Your task to perform on an android device: Open Chrome and go to the settings page Image 0: 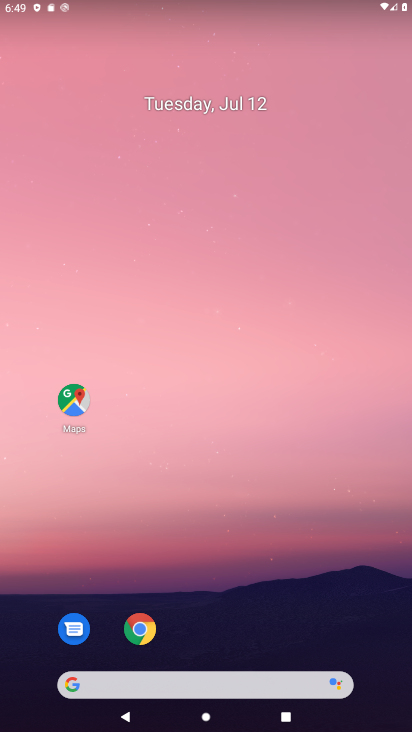
Step 0: drag from (261, 694) to (284, 191)
Your task to perform on an android device: Open Chrome and go to the settings page Image 1: 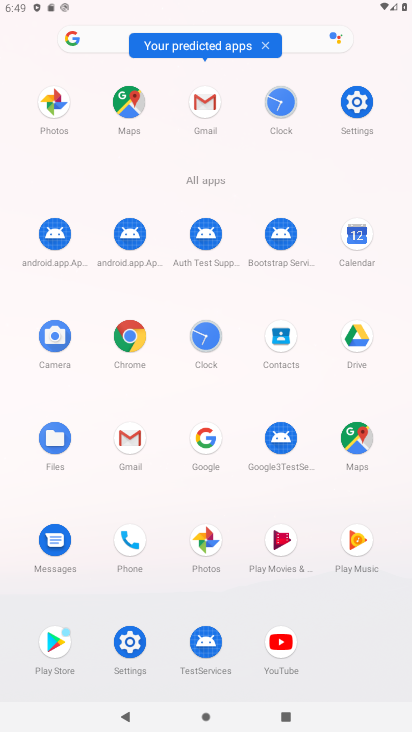
Step 1: click (133, 336)
Your task to perform on an android device: Open Chrome and go to the settings page Image 2: 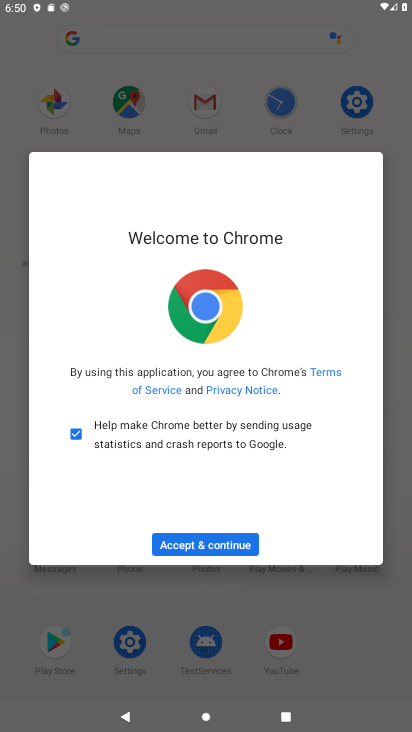
Step 2: click (223, 537)
Your task to perform on an android device: Open Chrome and go to the settings page Image 3: 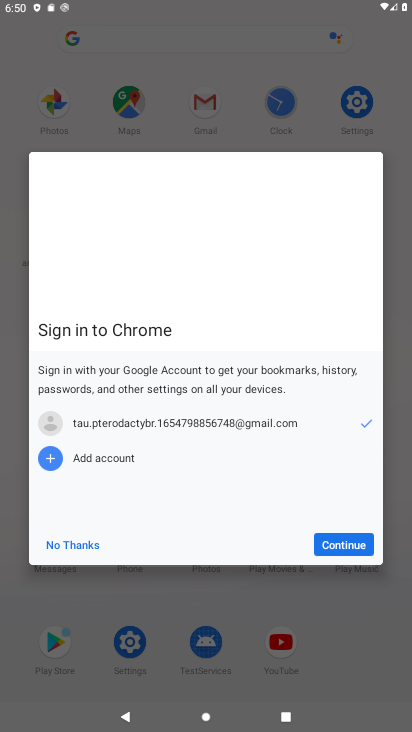
Step 3: click (343, 535)
Your task to perform on an android device: Open Chrome and go to the settings page Image 4: 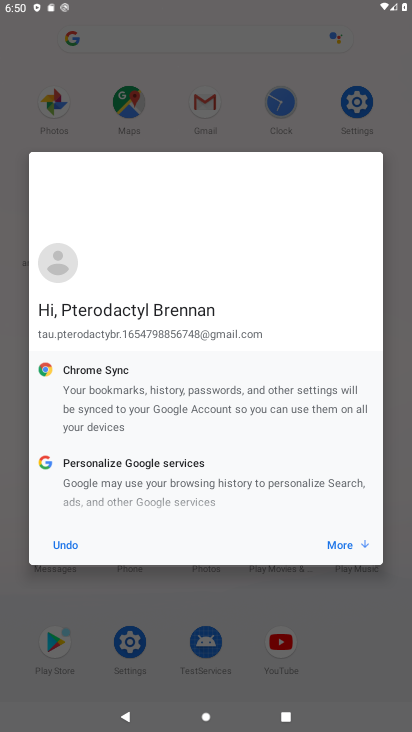
Step 4: click (357, 535)
Your task to perform on an android device: Open Chrome and go to the settings page Image 5: 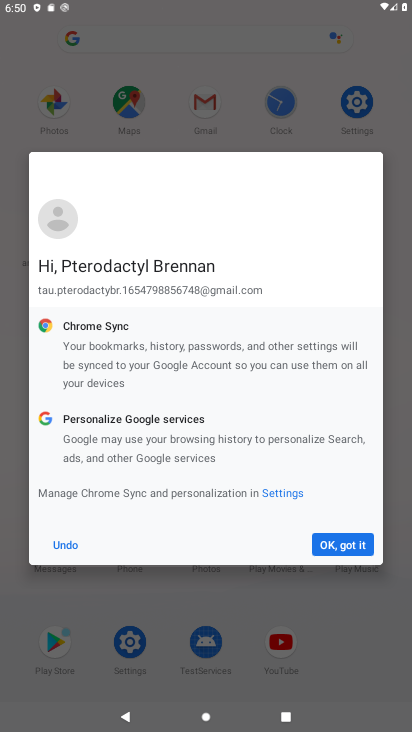
Step 5: click (356, 539)
Your task to perform on an android device: Open Chrome and go to the settings page Image 6: 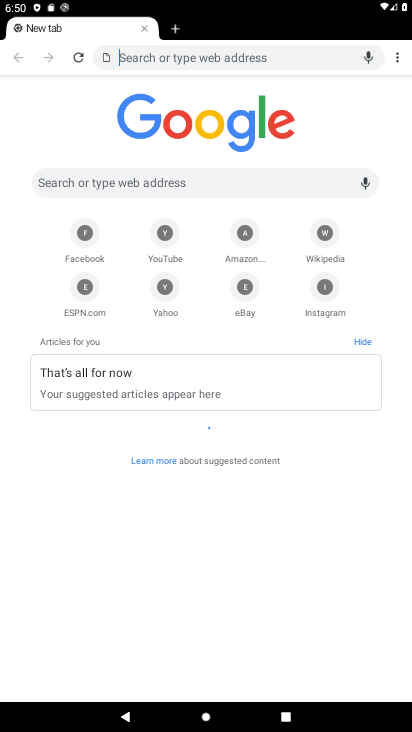
Step 6: task complete